Your task to perform on an android device: check battery use Image 0: 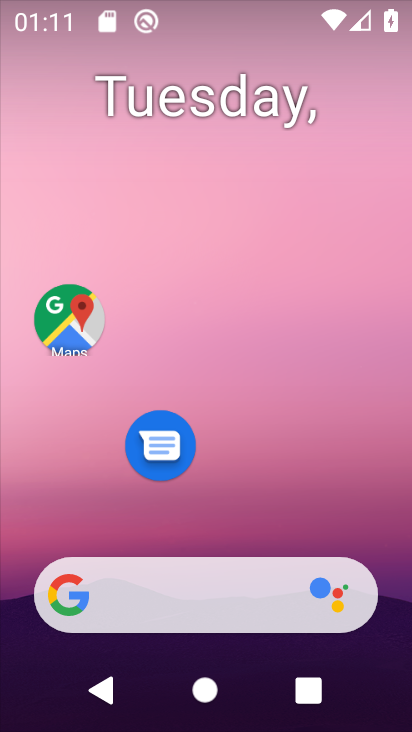
Step 0: drag from (255, 485) to (241, 69)
Your task to perform on an android device: check battery use Image 1: 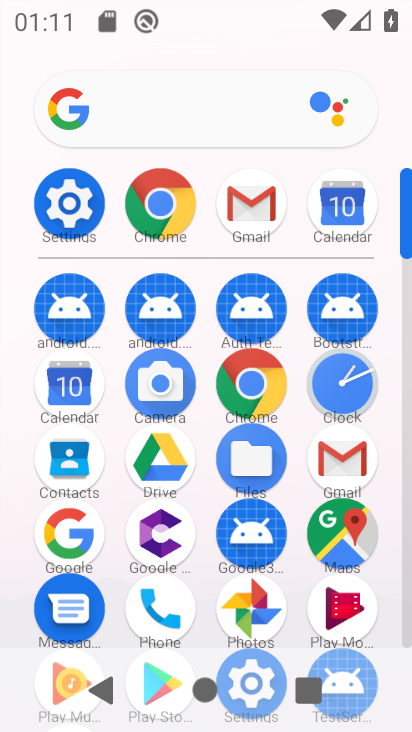
Step 1: click (62, 210)
Your task to perform on an android device: check battery use Image 2: 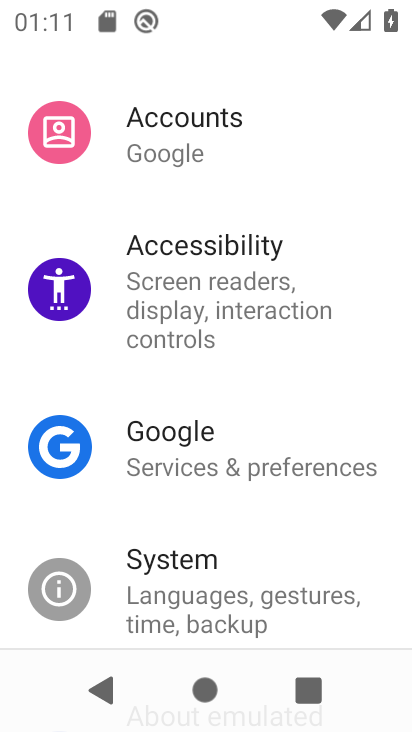
Step 2: drag from (230, 205) to (264, 689)
Your task to perform on an android device: check battery use Image 3: 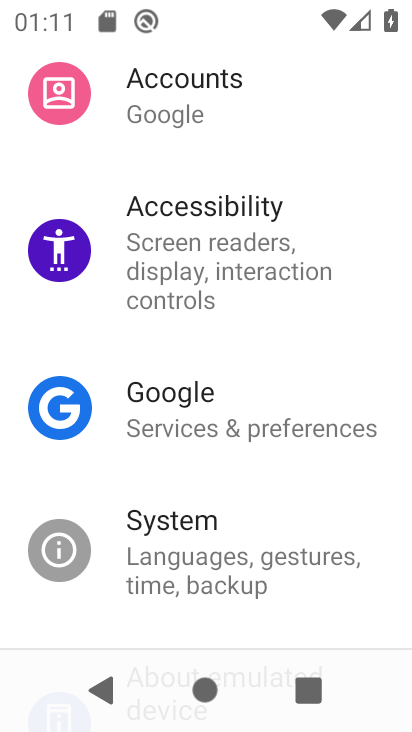
Step 3: drag from (179, 140) to (90, 641)
Your task to perform on an android device: check battery use Image 4: 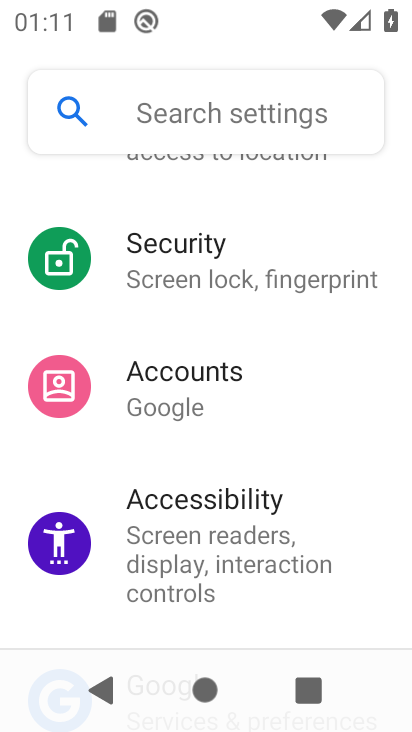
Step 4: drag from (185, 207) to (193, 705)
Your task to perform on an android device: check battery use Image 5: 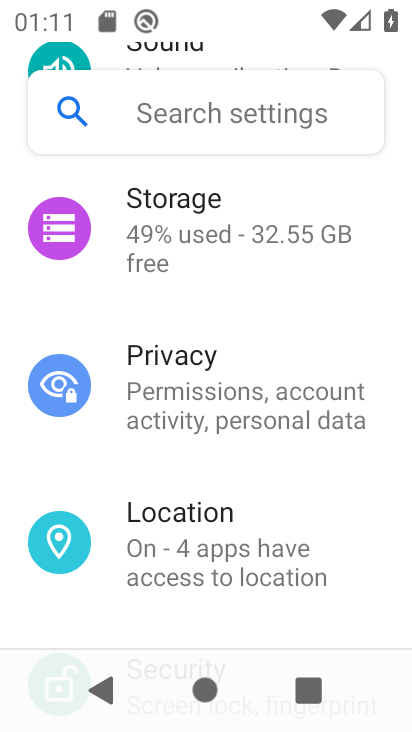
Step 5: drag from (198, 277) to (286, 672)
Your task to perform on an android device: check battery use Image 6: 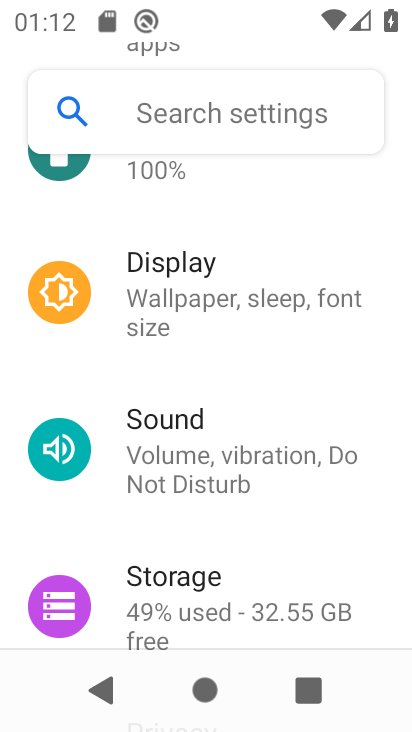
Step 6: drag from (218, 236) to (168, 627)
Your task to perform on an android device: check battery use Image 7: 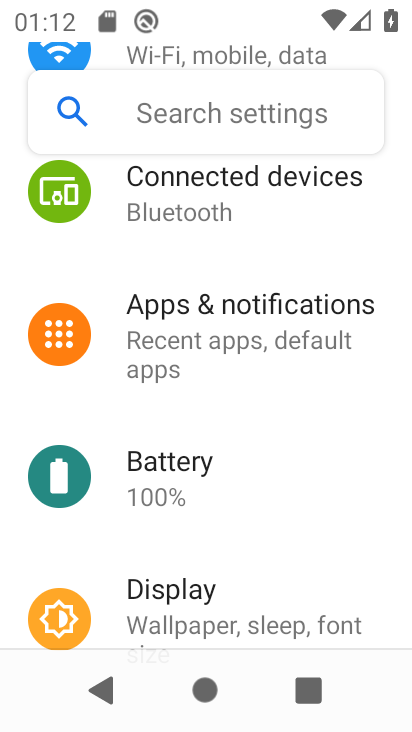
Step 7: click (155, 455)
Your task to perform on an android device: check battery use Image 8: 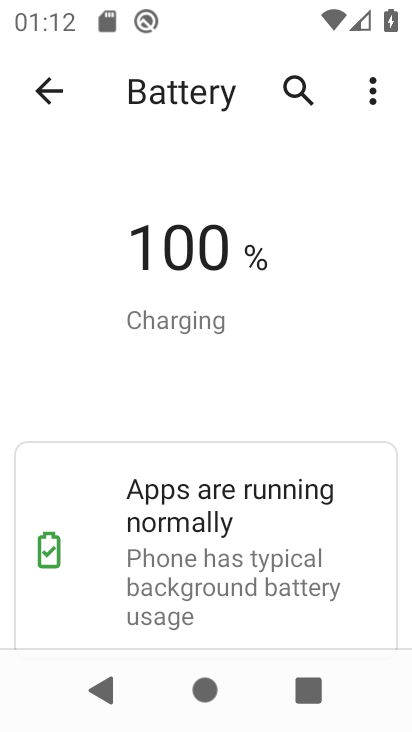
Step 8: task complete